Your task to perform on an android device: Open location settings Image 0: 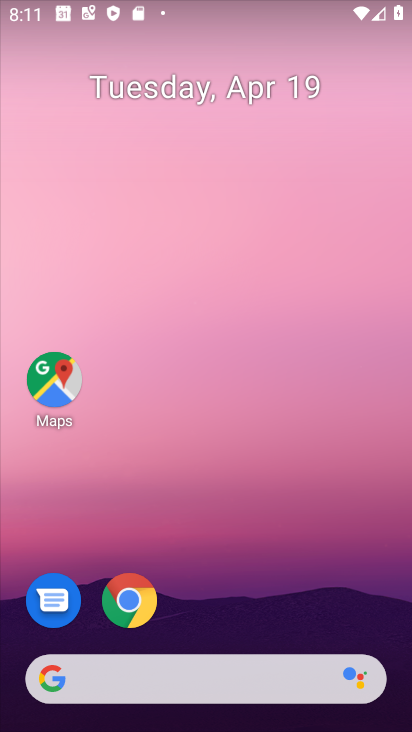
Step 0: click (239, 25)
Your task to perform on an android device: Open location settings Image 1: 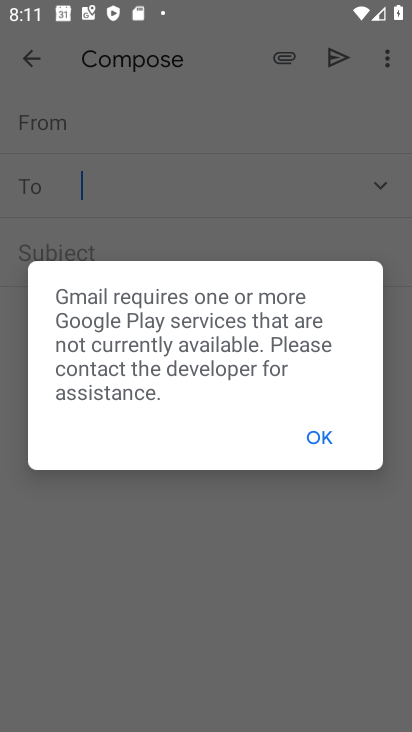
Step 1: press home button
Your task to perform on an android device: Open location settings Image 2: 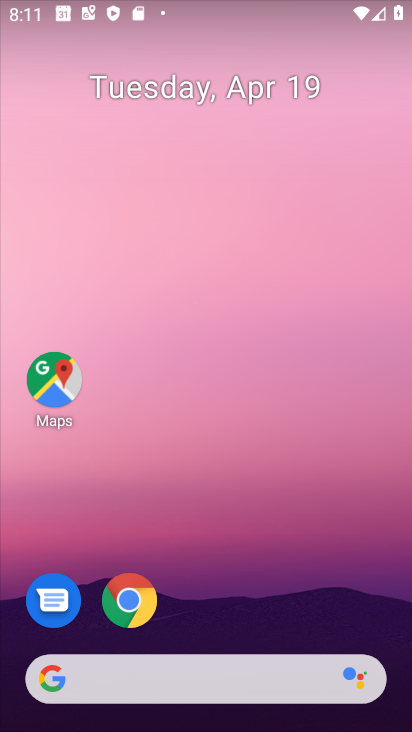
Step 2: drag from (279, 432) to (220, 121)
Your task to perform on an android device: Open location settings Image 3: 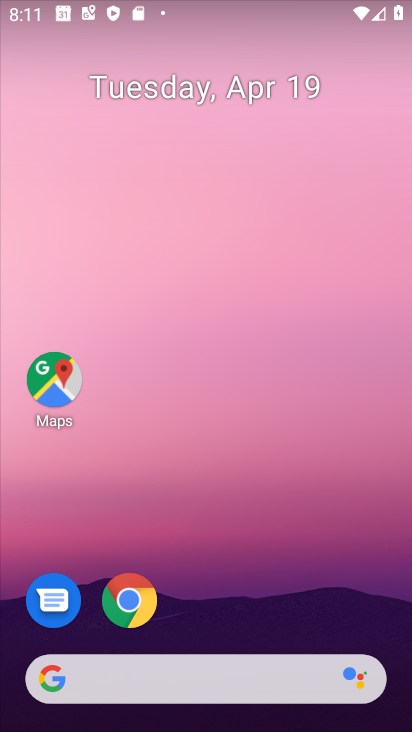
Step 3: drag from (207, 613) to (272, 106)
Your task to perform on an android device: Open location settings Image 4: 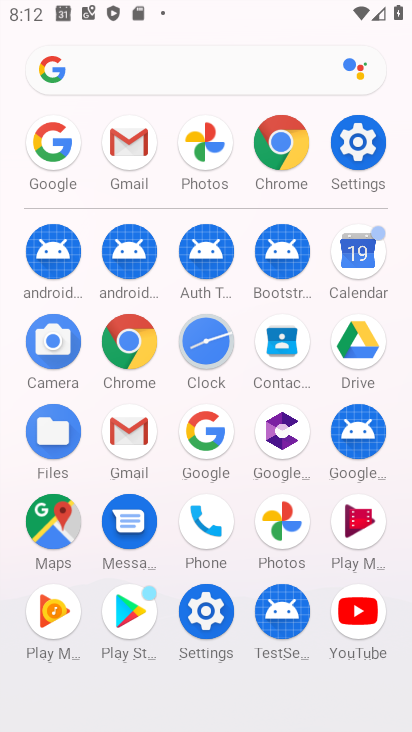
Step 4: click (346, 151)
Your task to perform on an android device: Open location settings Image 5: 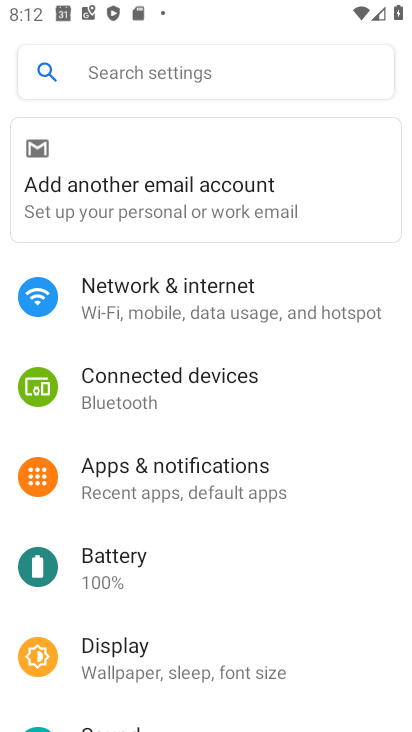
Step 5: drag from (169, 554) to (229, 187)
Your task to perform on an android device: Open location settings Image 6: 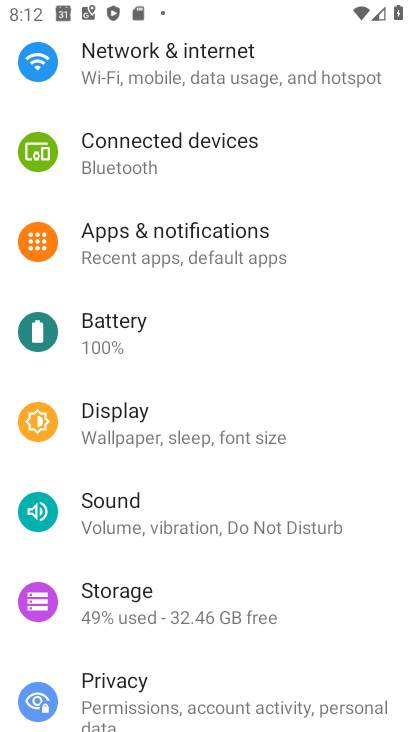
Step 6: drag from (137, 663) to (227, 155)
Your task to perform on an android device: Open location settings Image 7: 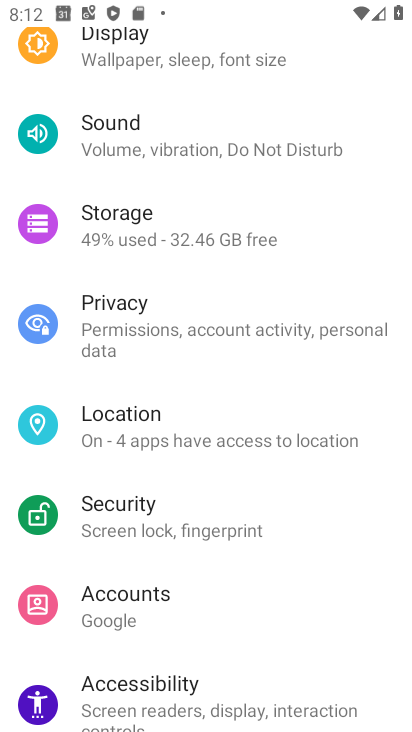
Step 7: click (147, 439)
Your task to perform on an android device: Open location settings Image 8: 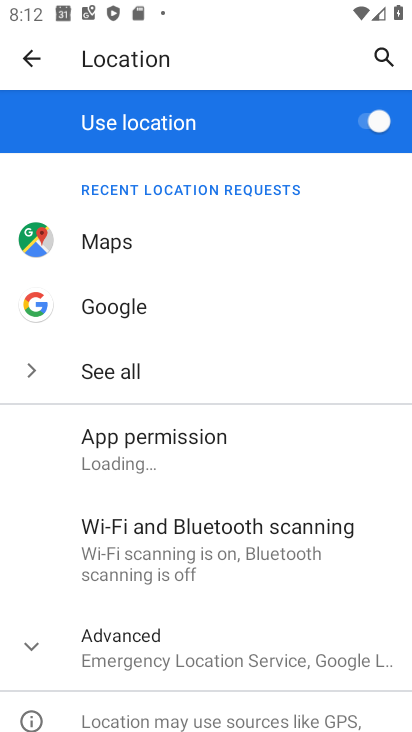
Step 8: task complete